Your task to perform on an android device: turn on the 24-hour format for clock Image 0: 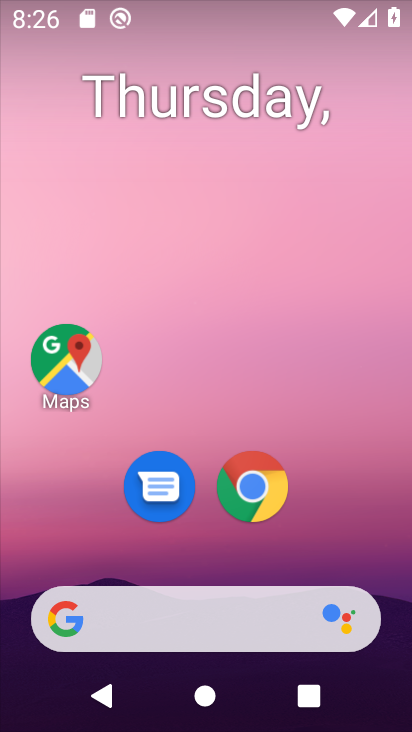
Step 0: drag from (182, 529) to (76, 42)
Your task to perform on an android device: turn on the 24-hour format for clock Image 1: 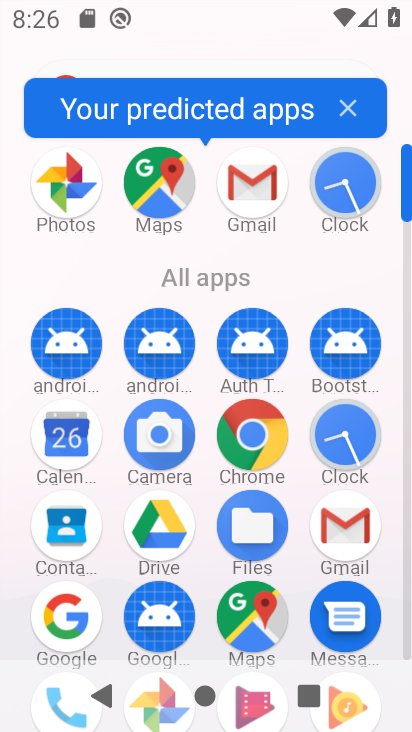
Step 1: click (357, 429)
Your task to perform on an android device: turn on the 24-hour format for clock Image 2: 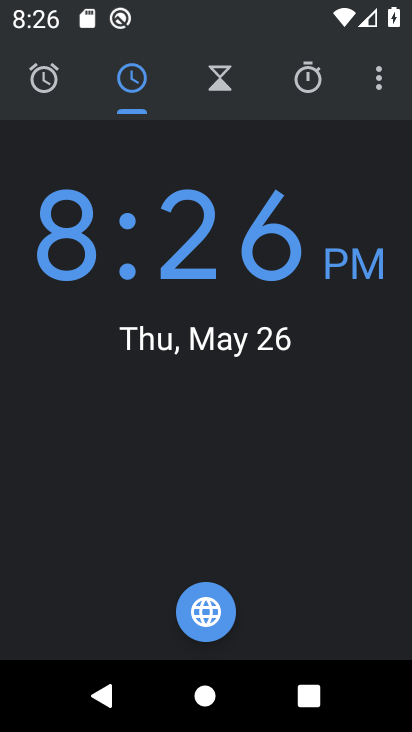
Step 2: click (382, 85)
Your task to perform on an android device: turn on the 24-hour format for clock Image 3: 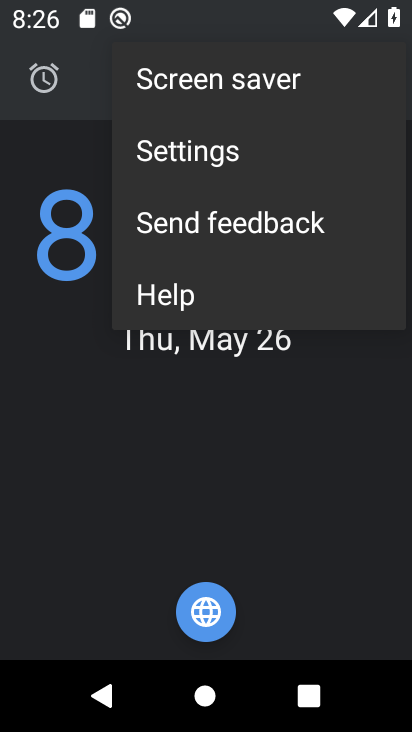
Step 3: click (224, 164)
Your task to perform on an android device: turn on the 24-hour format for clock Image 4: 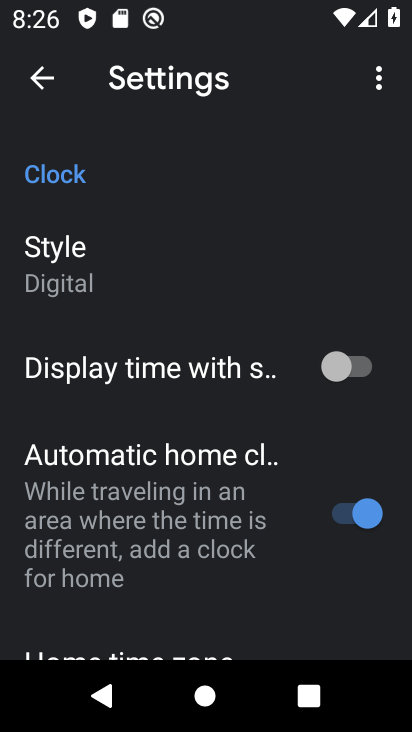
Step 4: drag from (183, 550) to (65, 43)
Your task to perform on an android device: turn on the 24-hour format for clock Image 5: 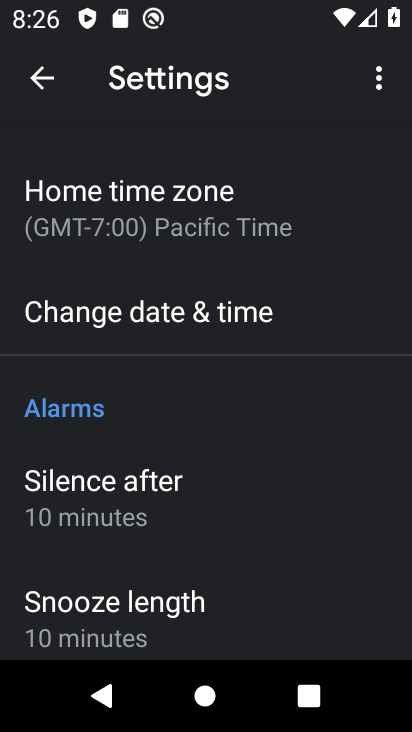
Step 5: drag from (182, 570) to (93, 89)
Your task to perform on an android device: turn on the 24-hour format for clock Image 6: 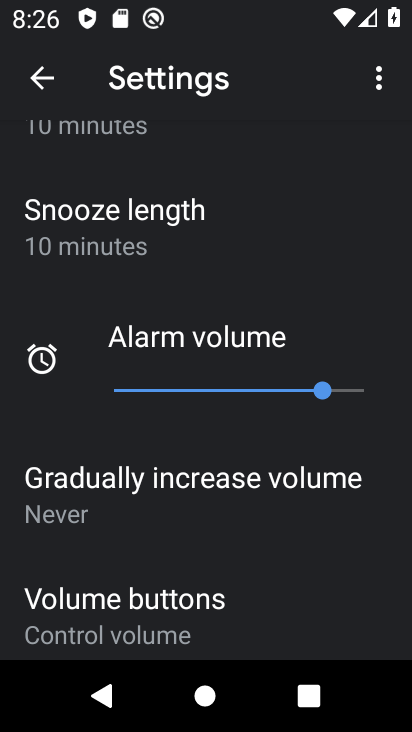
Step 6: drag from (227, 591) to (149, 711)
Your task to perform on an android device: turn on the 24-hour format for clock Image 7: 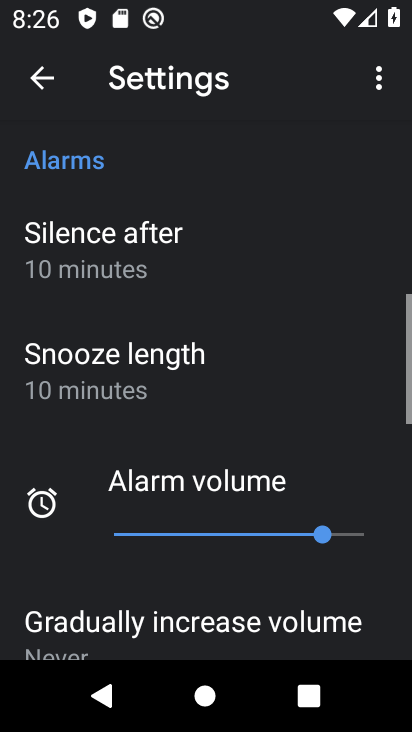
Step 7: drag from (65, 279) to (90, 571)
Your task to perform on an android device: turn on the 24-hour format for clock Image 8: 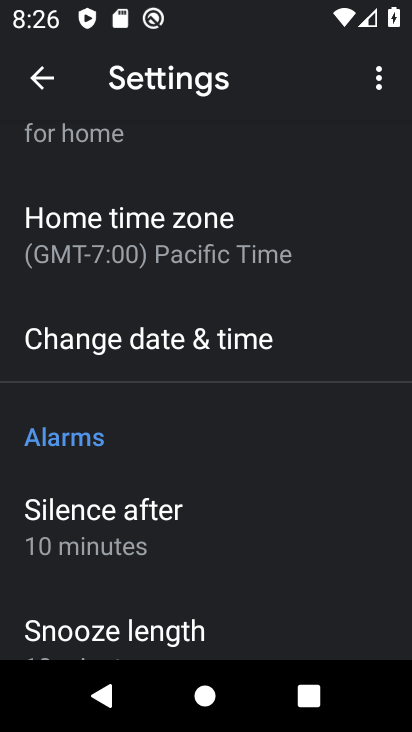
Step 8: click (117, 349)
Your task to perform on an android device: turn on the 24-hour format for clock Image 9: 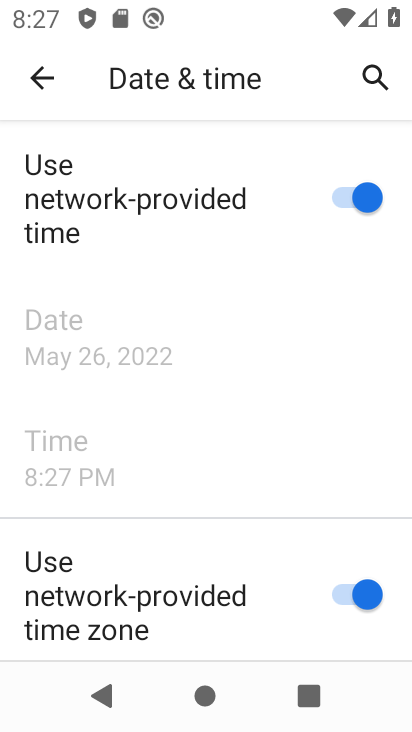
Step 9: drag from (255, 589) to (128, 93)
Your task to perform on an android device: turn on the 24-hour format for clock Image 10: 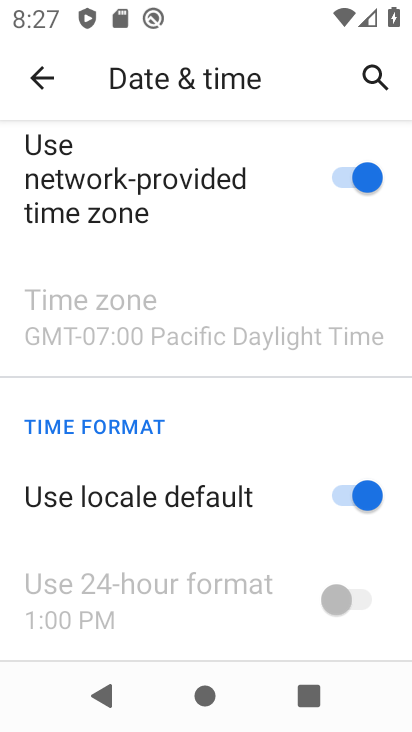
Step 10: click (339, 497)
Your task to perform on an android device: turn on the 24-hour format for clock Image 11: 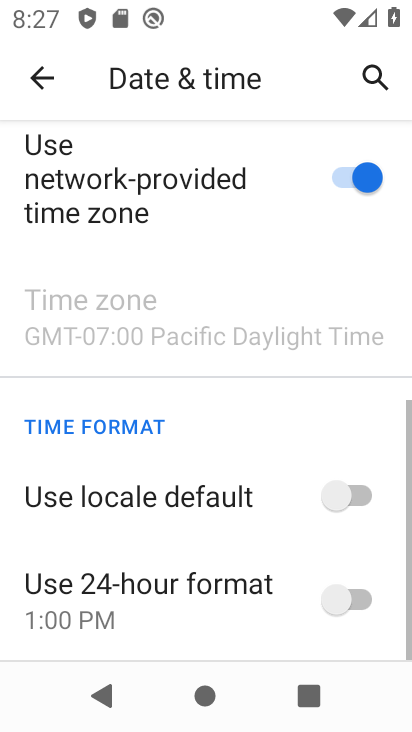
Step 11: click (350, 590)
Your task to perform on an android device: turn on the 24-hour format for clock Image 12: 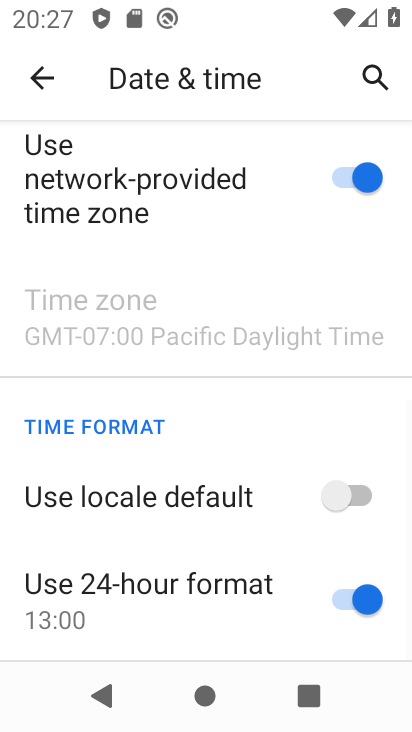
Step 12: task complete